Your task to perform on an android device: turn on the 24-hour format for clock Image 0: 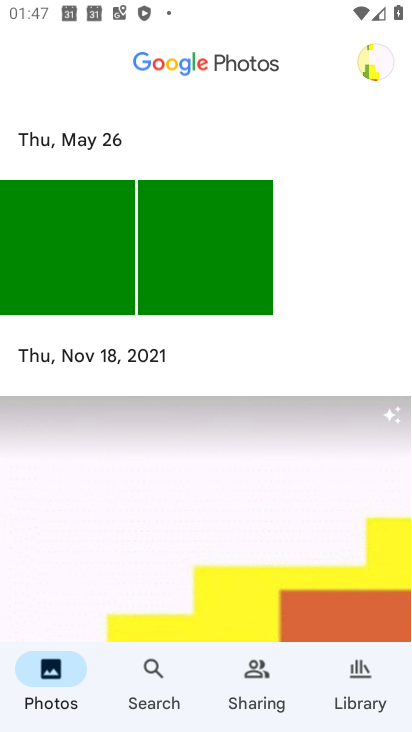
Step 0: press home button
Your task to perform on an android device: turn on the 24-hour format for clock Image 1: 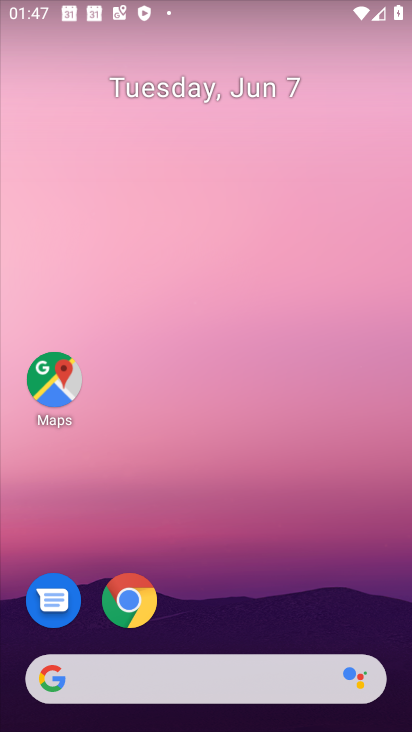
Step 1: drag from (213, 725) to (213, 168)
Your task to perform on an android device: turn on the 24-hour format for clock Image 2: 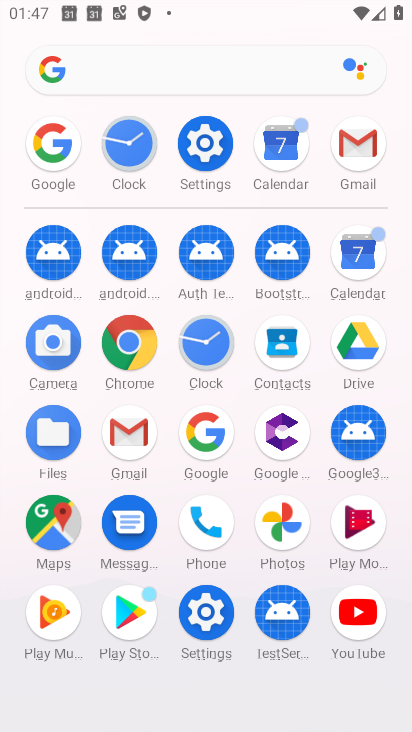
Step 2: click (205, 348)
Your task to perform on an android device: turn on the 24-hour format for clock Image 3: 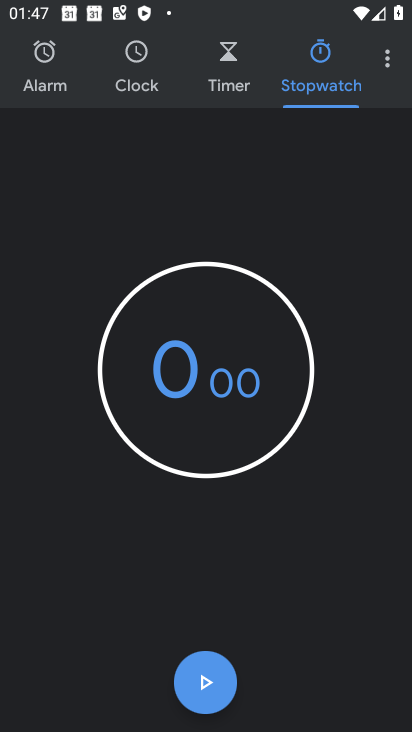
Step 3: click (389, 67)
Your task to perform on an android device: turn on the 24-hour format for clock Image 4: 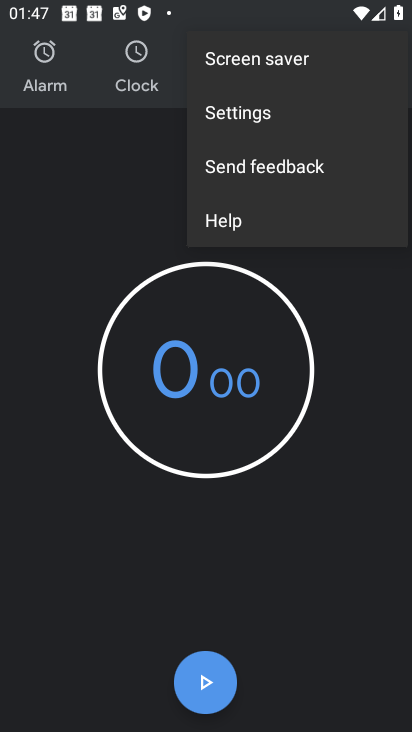
Step 4: click (260, 106)
Your task to perform on an android device: turn on the 24-hour format for clock Image 5: 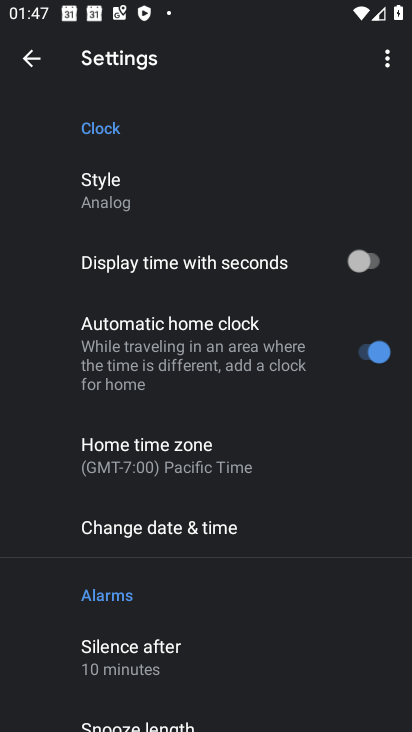
Step 5: click (151, 525)
Your task to perform on an android device: turn on the 24-hour format for clock Image 6: 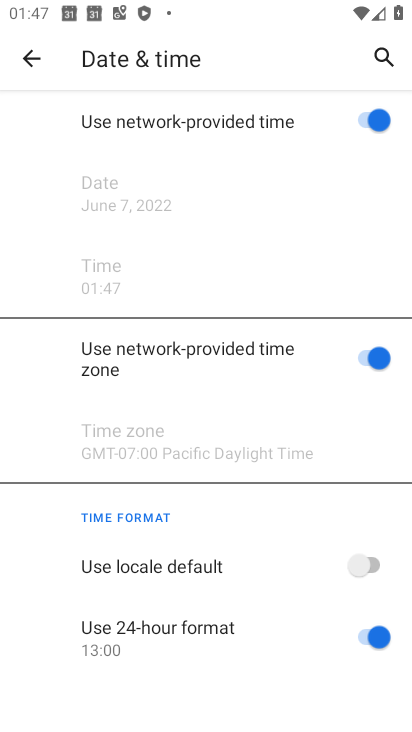
Step 6: task complete